Your task to perform on an android device: turn pop-ups off in chrome Image 0: 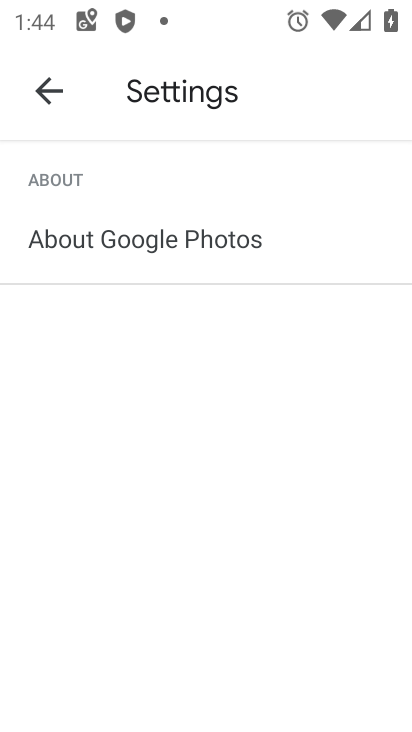
Step 0: press home button
Your task to perform on an android device: turn pop-ups off in chrome Image 1: 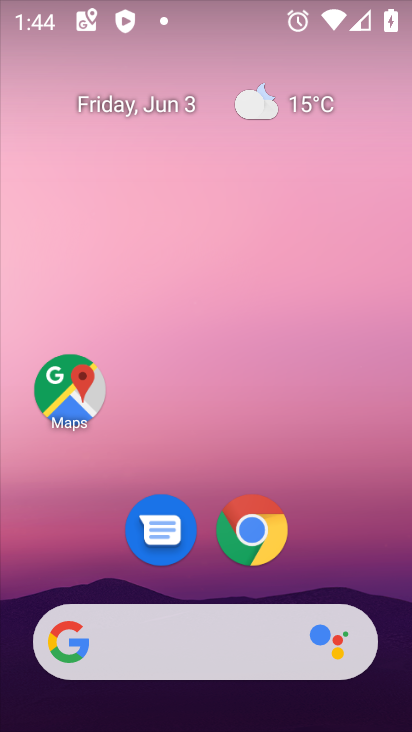
Step 1: click (251, 518)
Your task to perform on an android device: turn pop-ups off in chrome Image 2: 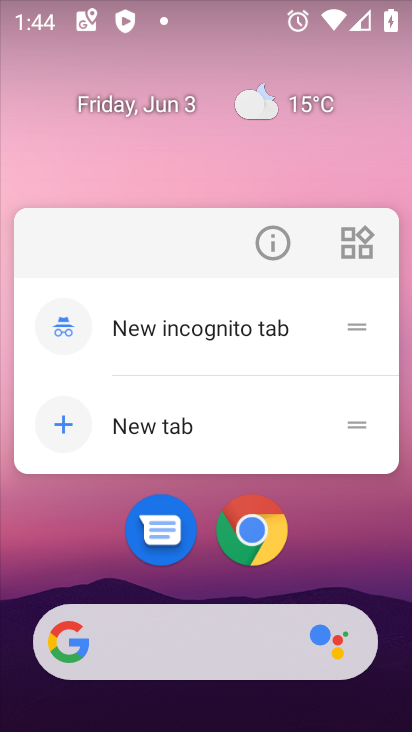
Step 2: click (245, 550)
Your task to perform on an android device: turn pop-ups off in chrome Image 3: 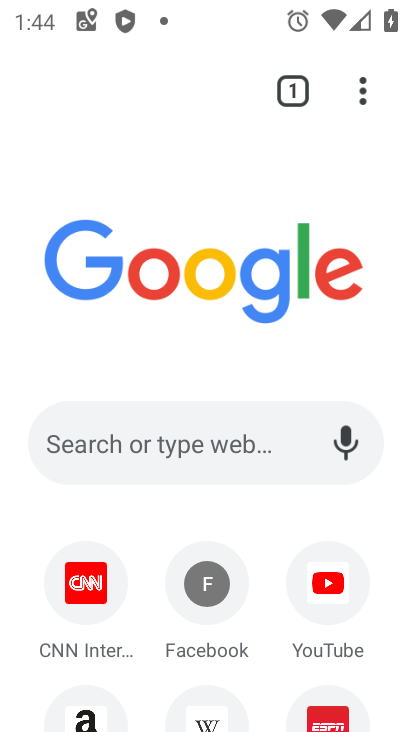
Step 3: drag from (358, 88) to (224, 548)
Your task to perform on an android device: turn pop-ups off in chrome Image 4: 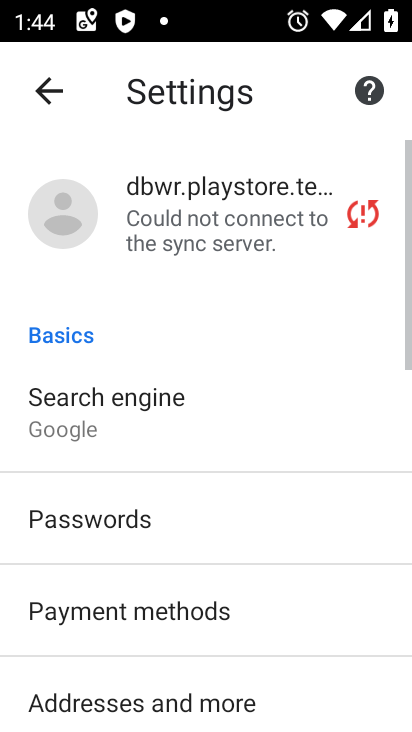
Step 4: drag from (282, 400) to (270, 109)
Your task to perform on an android device: turn pop-ups off in chrome Image 5: 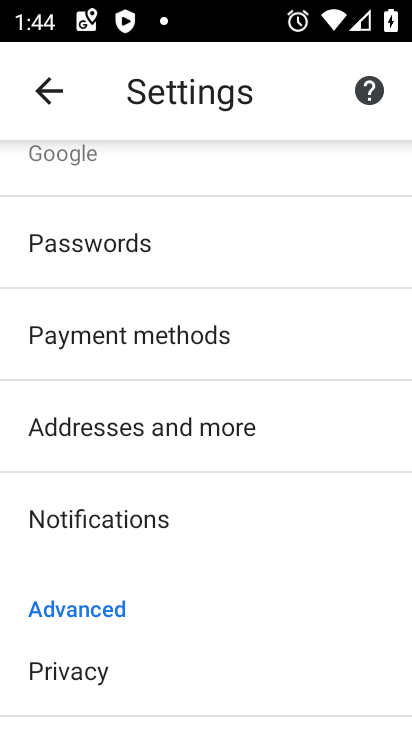
Step 5: drag from (278, 600) to (255, 342)
Your task to perform on an android device: turn pop-ups off in chrome Image 6: 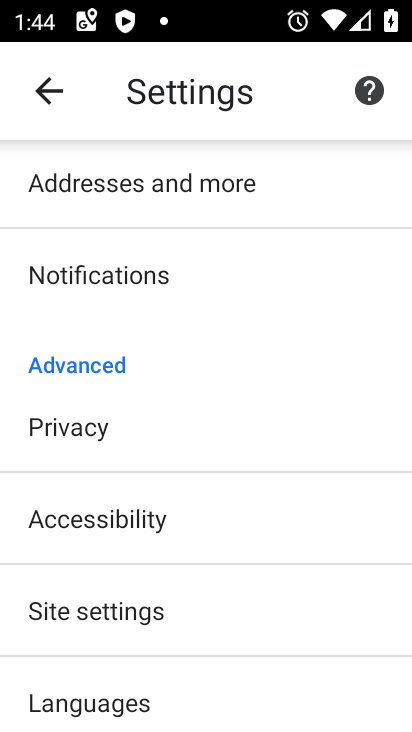
Step 6: click (131, 622)
Your task to perform on an android device: turn pop-ups off in chrome Image 7: 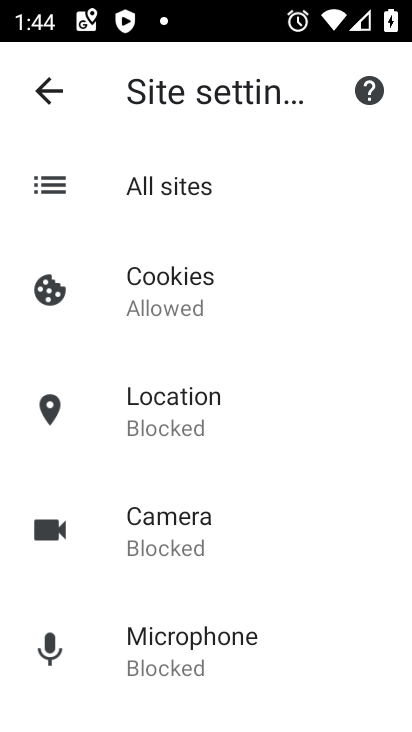
Step 7: drag from (375, 643) to (349, 251)
Your task to perform on an android device: turn pop-ups off in chrome Image 8: 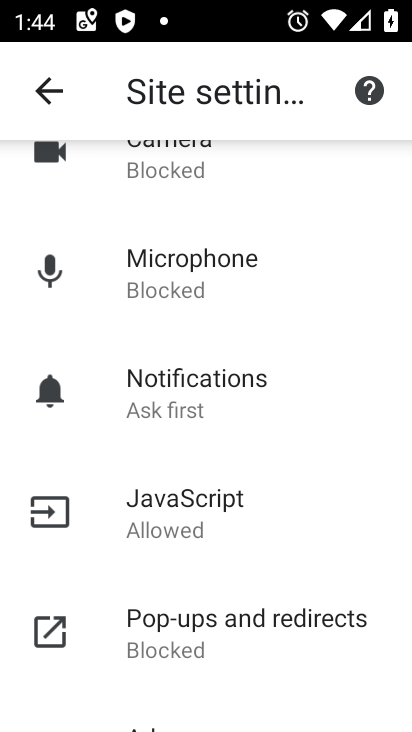
Step 8: click (219, 630)
Your task to perform on an android device: turn pop-ups off in chrome Image 9: 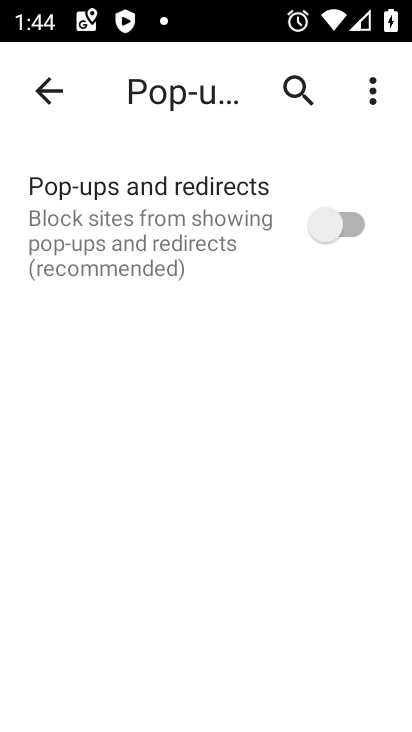
Step 9: click (336, 222)
Your task to perform on an android device: turn pop-ups off in chrome Image 10: 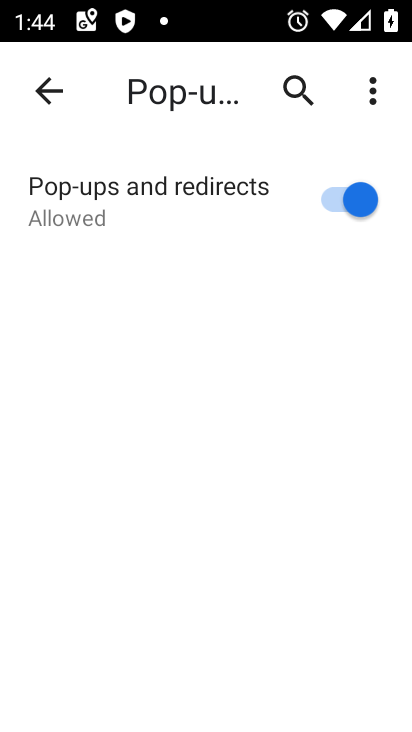
Step 10: click (336, 222)
Your task to perform on an android device: turn pop-ups off in chrome Image 11: 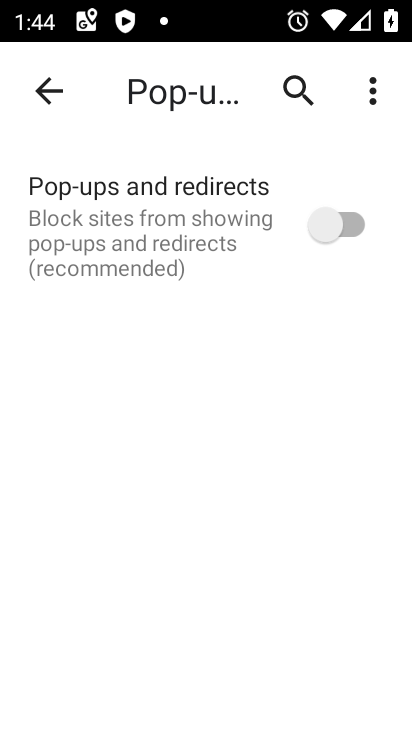
Step 11: task complete